Your task to perform on an android device: open the mobile data screen to see how much data has been used Image 0: 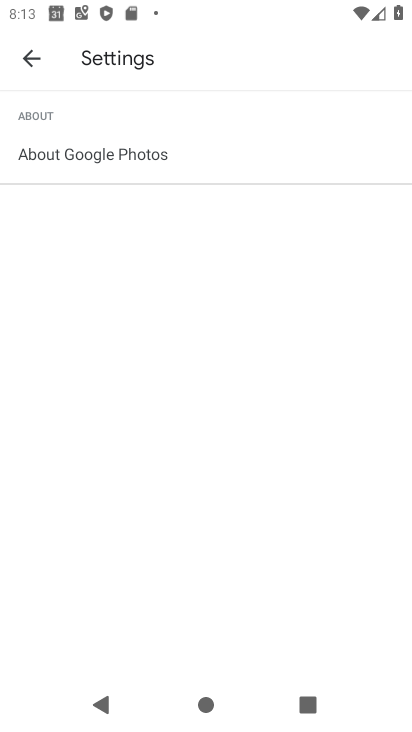
Step 0: press home button
Your task to perform on an android device: open the mobile data screen to see how much data has been used Image 1: 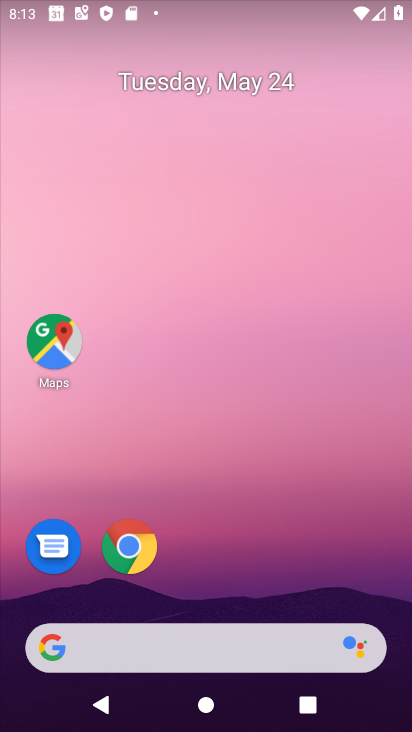
Step 1: drag from (229, 518) to (207, 33)
Your task to perform on an android device: open the mobile data screen to see how much data has been used Image 2: 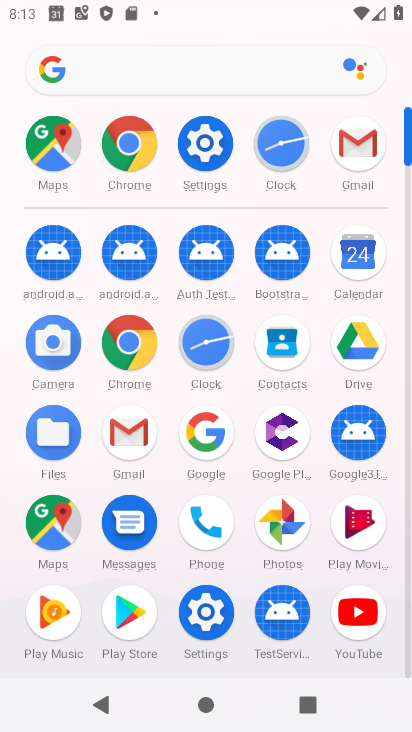
Step 2: click (218, 140)
Your task to perform on an android device: open the mobile data screen to see how much data has been used Image 3: 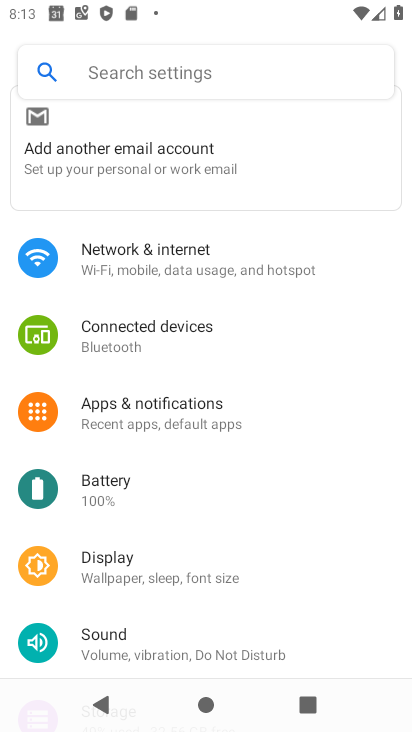
Step 3: click (198, 257)
Your task to perform on an android device: open the mobile data screen to see how much data has been used Image 4: 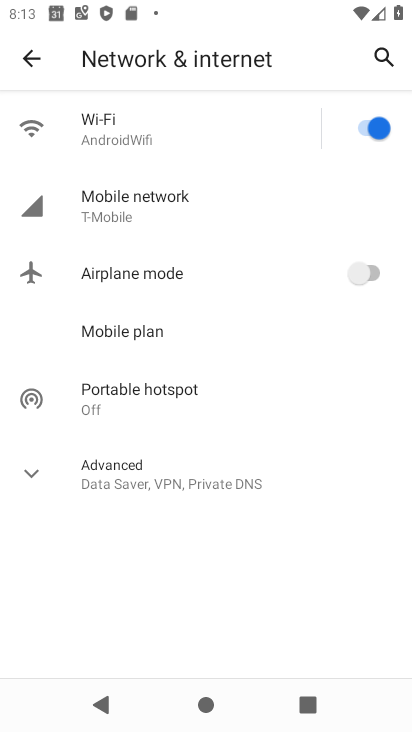
Step 4: click (212, 198)
Your task to perform on an android device: open the mobile data screen to see how much data has been used Image 5: 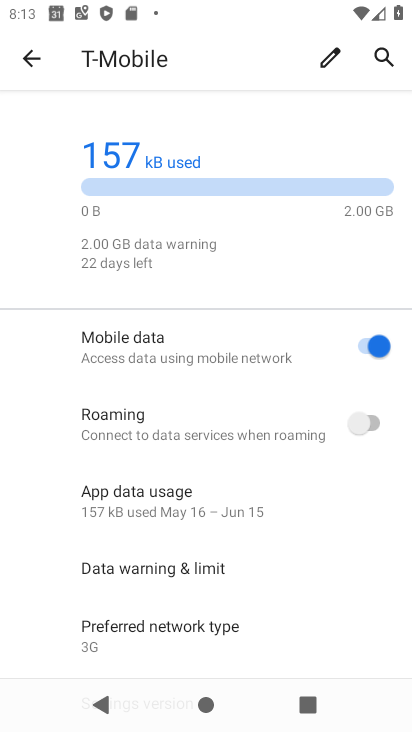
Step 5: task complete